Your task to perform on an android device: What's on the menu at Burger King? Image 0: 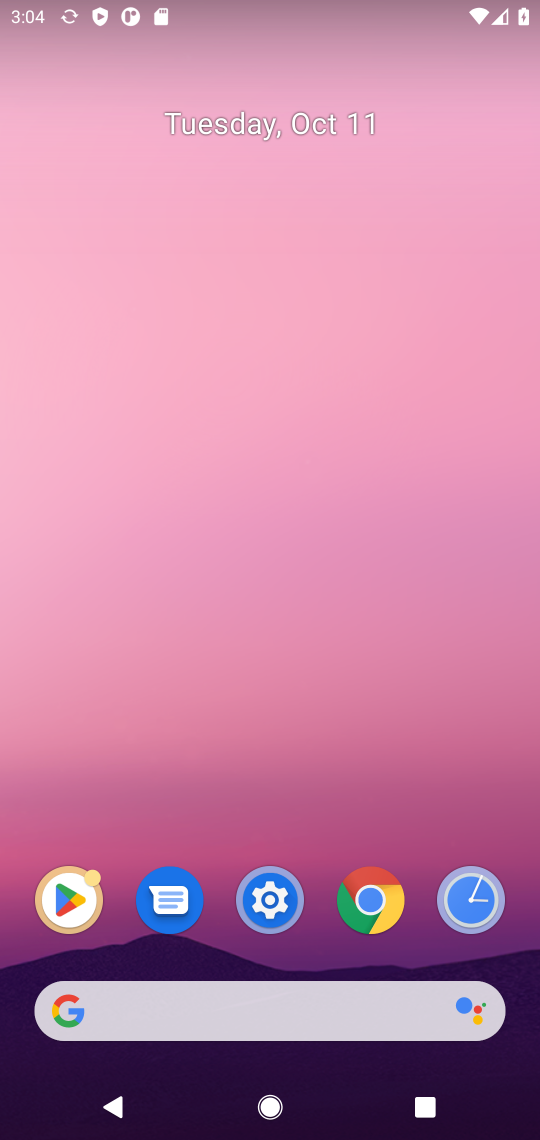
Step 0: click (307, 1001)
Your task to perform on an android device: What's on the menu at Burger King? Image 1: 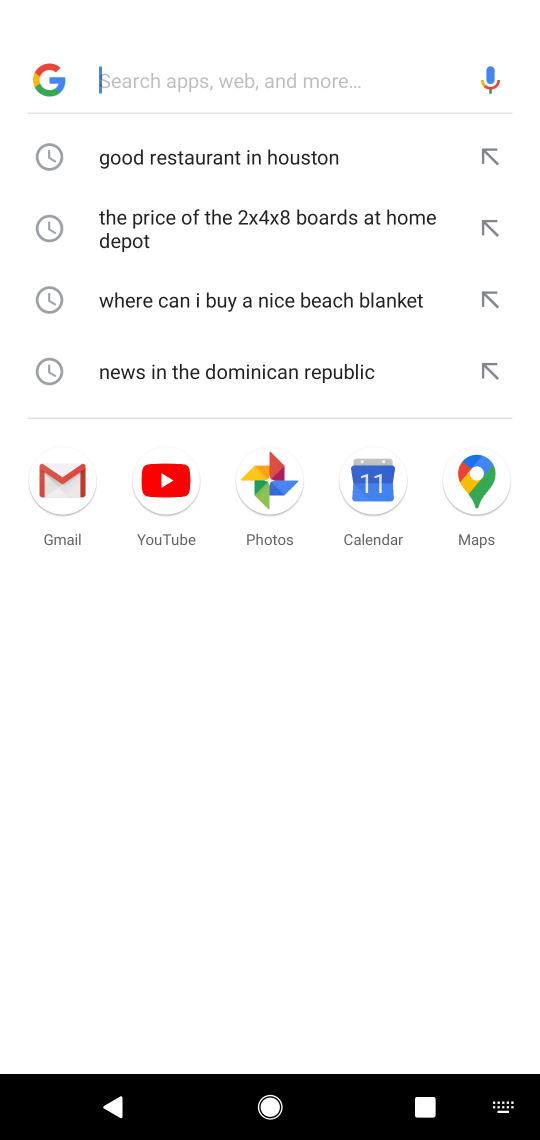
Step 1: type "the menu at Burger King?"
Your task to perform on an android device: What's on the menu at Burger King? Image 2: 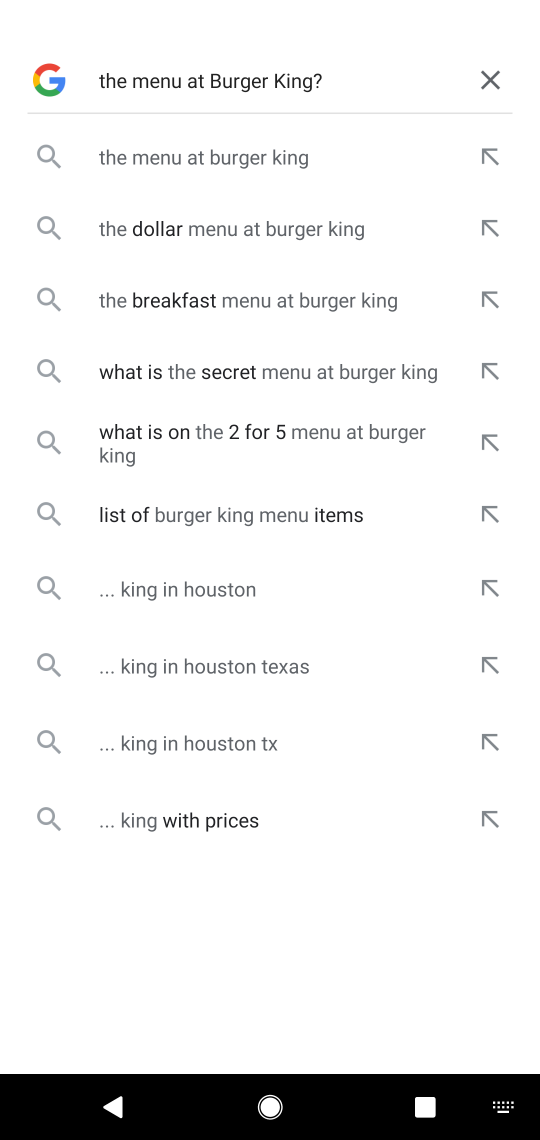
Step 2: type ""
Your task to perform on an android device: What's on the menu at Burger King? Image 3: 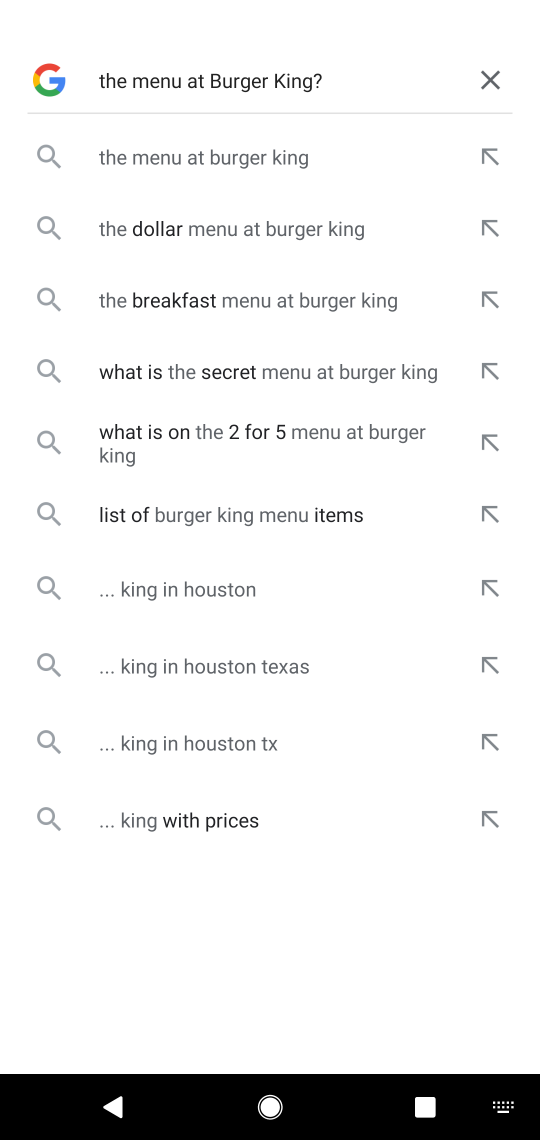
Step 3: click (198, 169)
Your task to perform on an android device: What's on the menu at Burger King? Image 4: 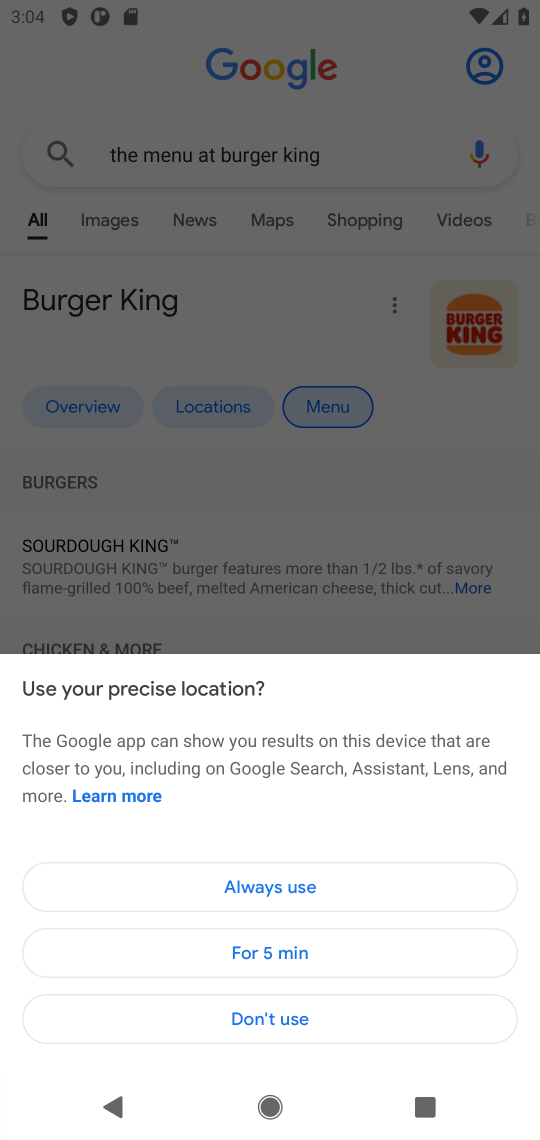
Step 4: drag from (227, 817) to (268, 696)
Your task to perform on an android device: What's on the menu at Burger King? Image 5: 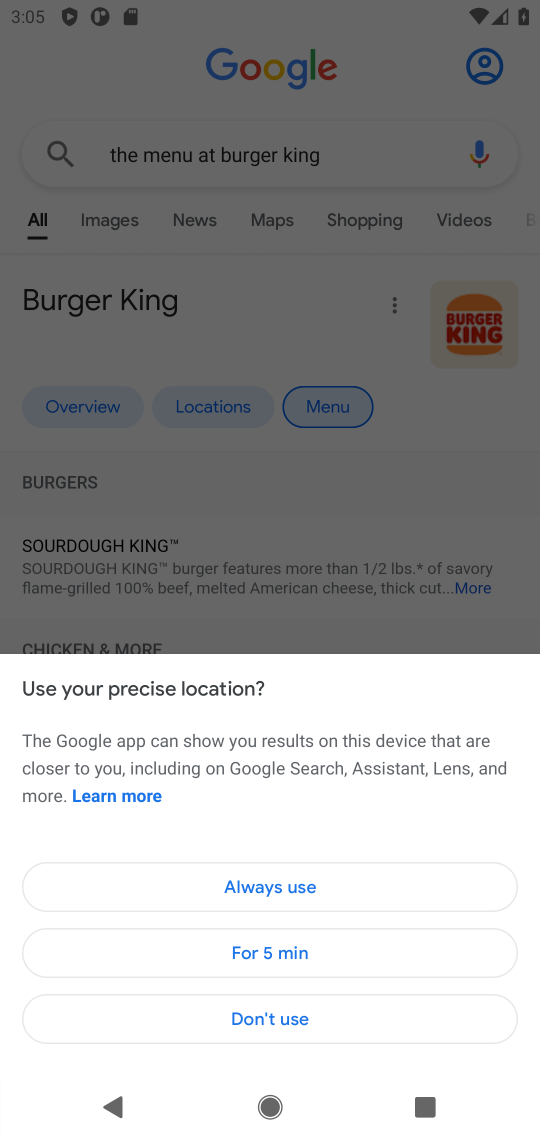
Step 5: click (274, 881)
Your task to perform on an android device: What's on the menu at Burger King? Image 6: 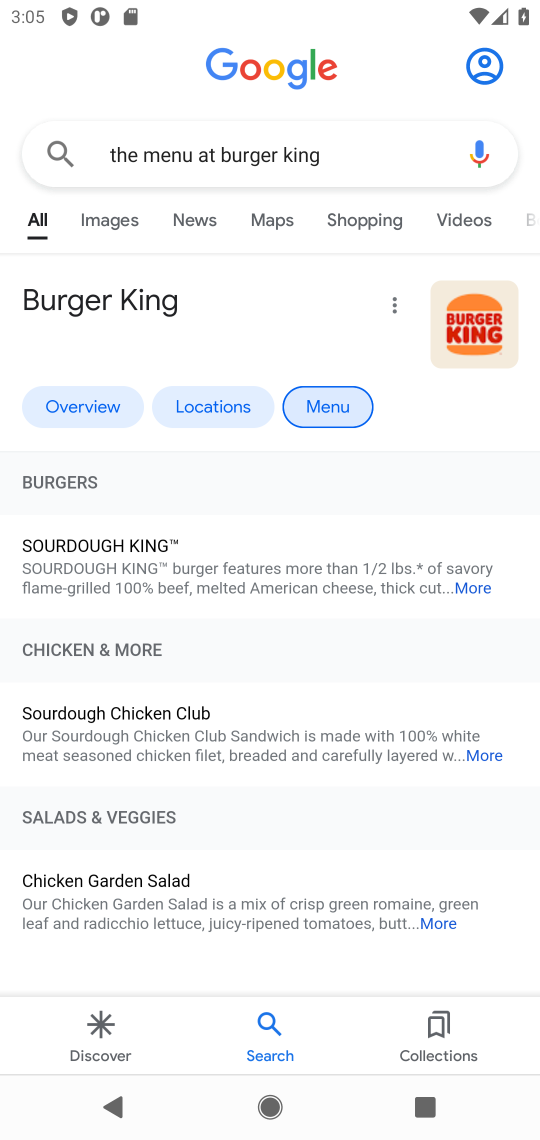
Step 6: drag from (272, 887) to (314, 307)
Your task to perform on an android device: What's on the menu at Burger King? Image 7: 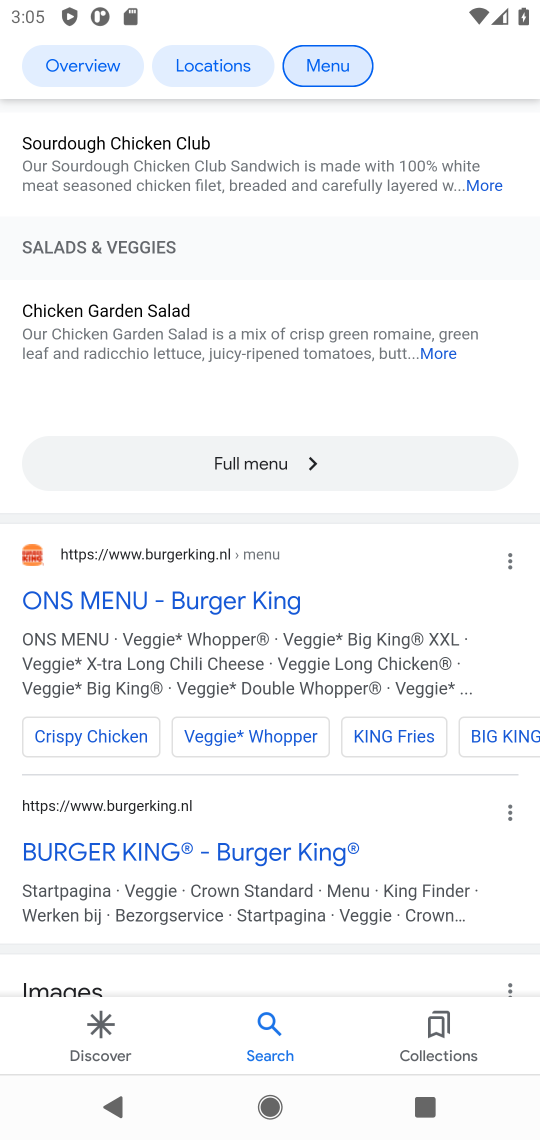
Step 7: drag from (314, 658) to (321, 591)
Your task to perform on an android device: What's on the menu at Burger King? Image 8: 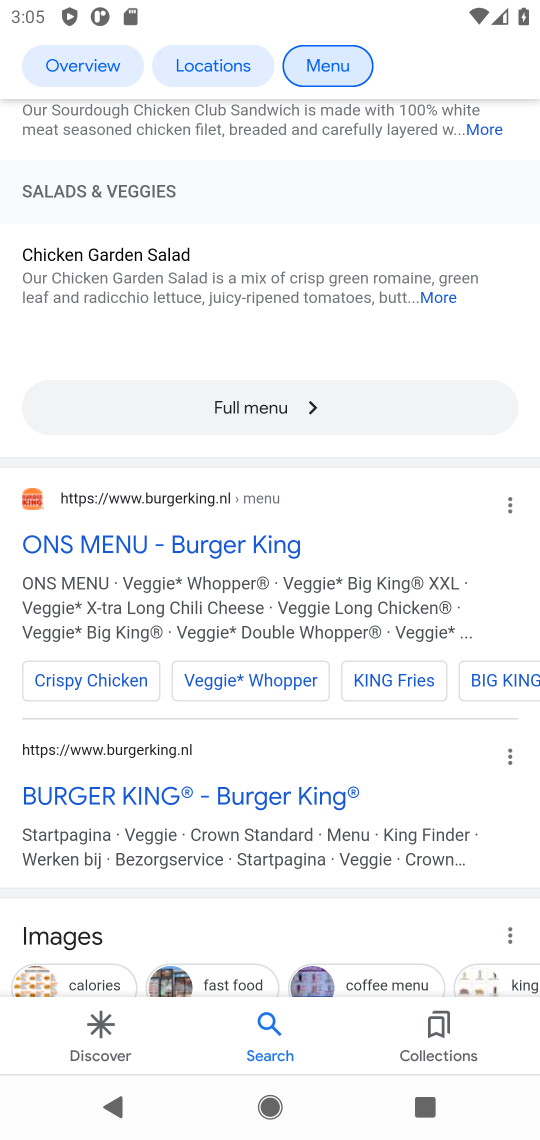
Step 8: click (204, 557)
Your task to perform on an android device: What's on the menu at Burger King? Image 9: 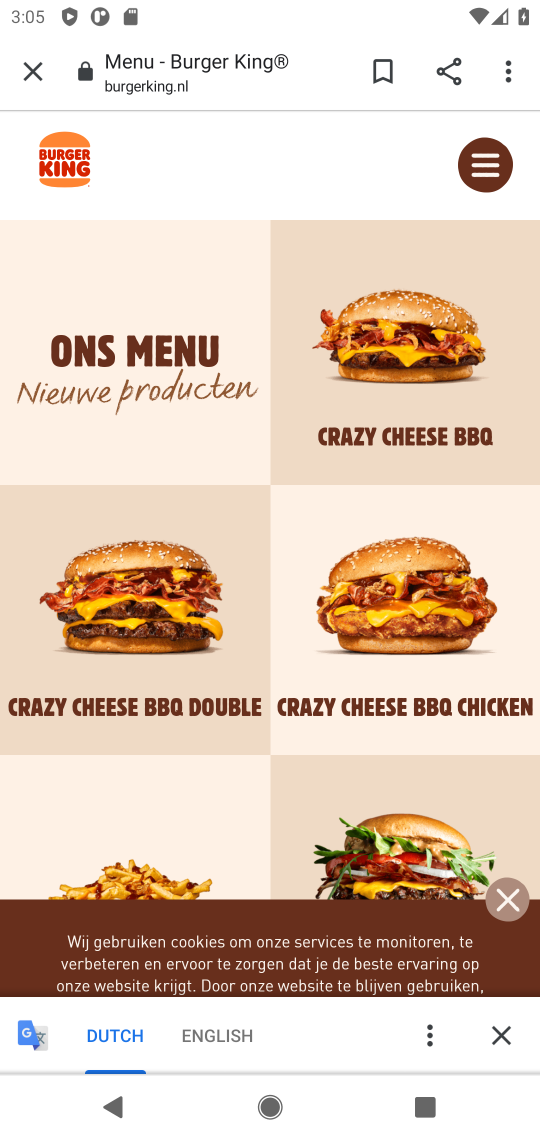
Step 9: click (223, 755)
Your task to perform on an android device: What's on the menu at Burger King? Image 10: 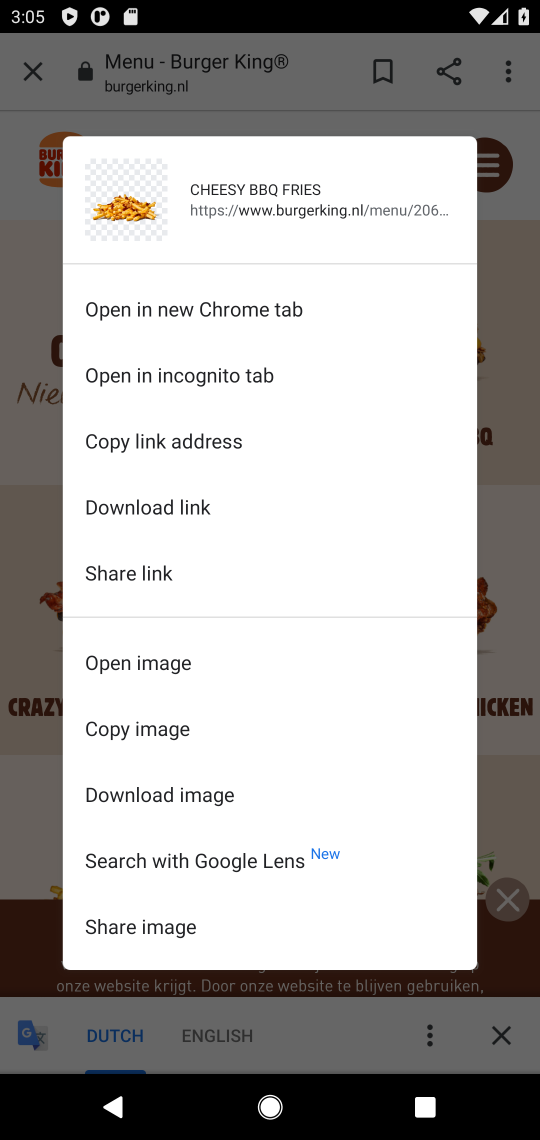
Step 10: click (516, 688)
Your task to perform on an android device: What's on the menu at Burger King? Image 11: 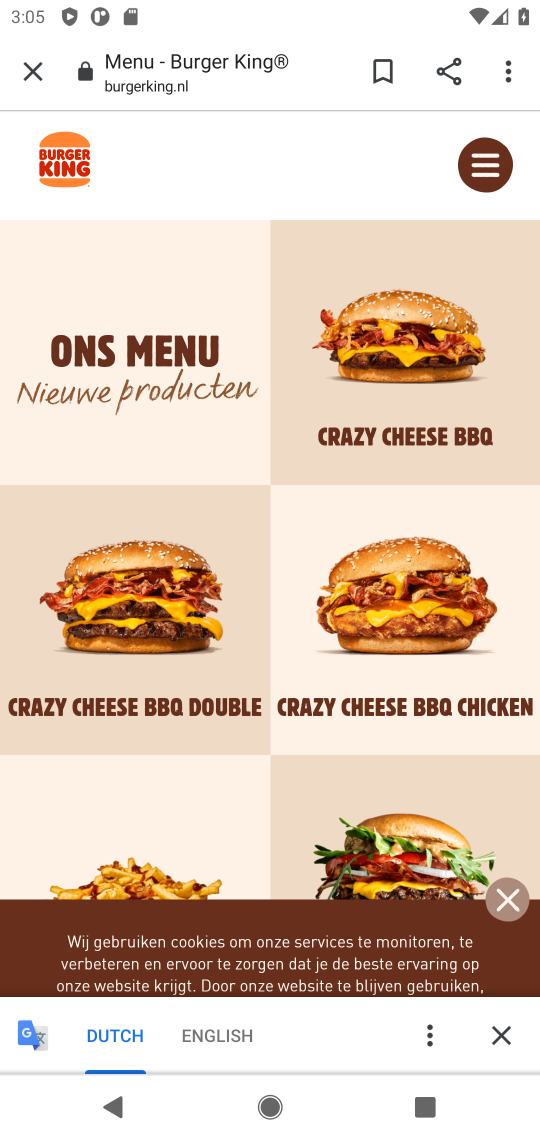
Step 11: drag from (285, 791) to (293, 639)
Your task to perform on an android device: What's on the menu at Burger King? Image 12: 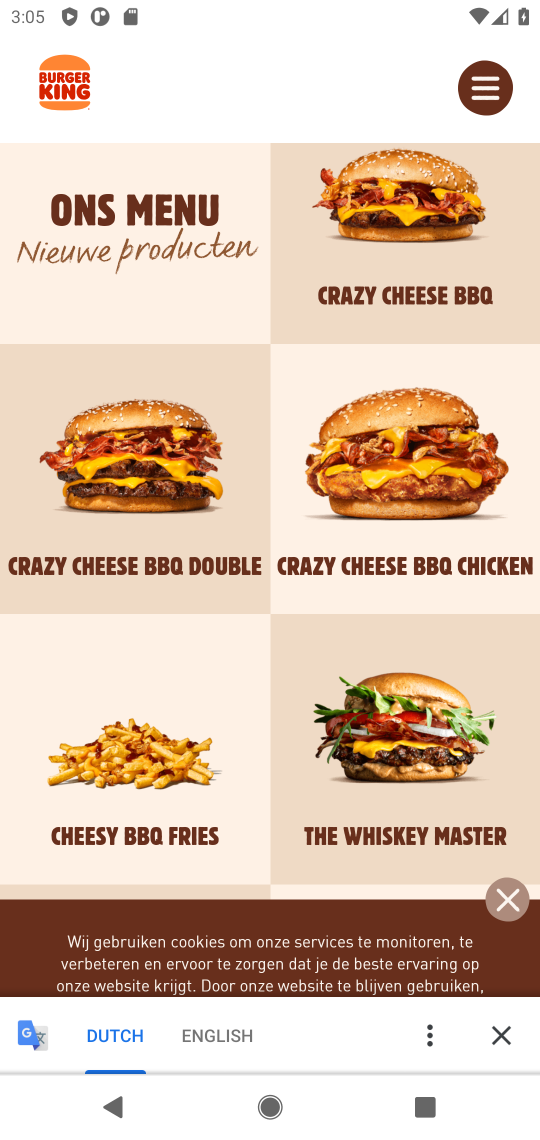
Step 12: click (516, 922)
Your task to perform on an android device: What's on the menu at Burger King? Image 13: 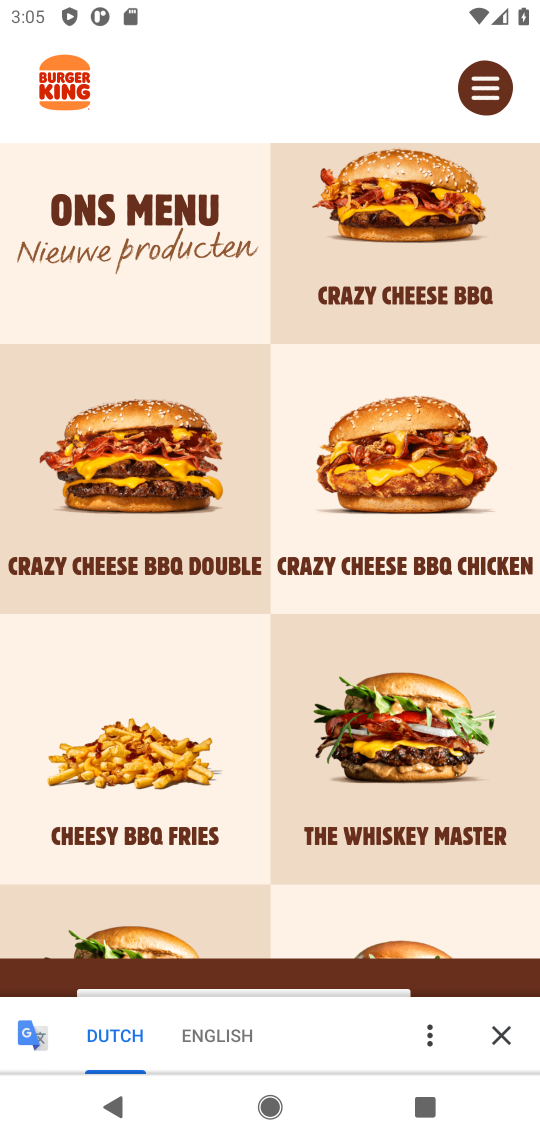
Step 13: click (510, 907)
Your task to perform on an android device: What's on the menu at Burger King? Image 14: 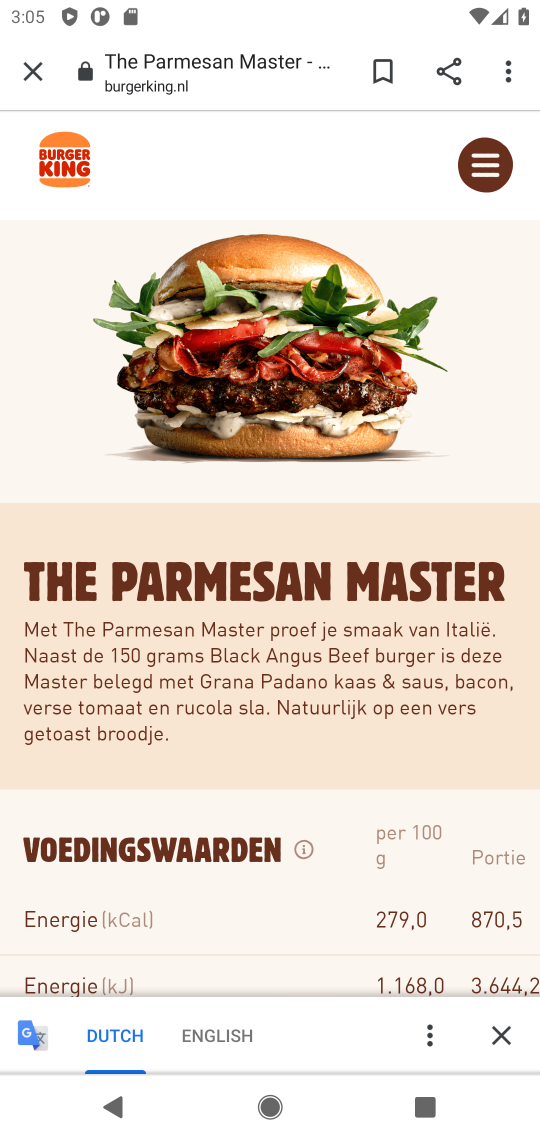
Step 14: drag from (267, 902) to (273, 258)
Your task to perform on an android device: What's on the menu at Burger King? Image 15: 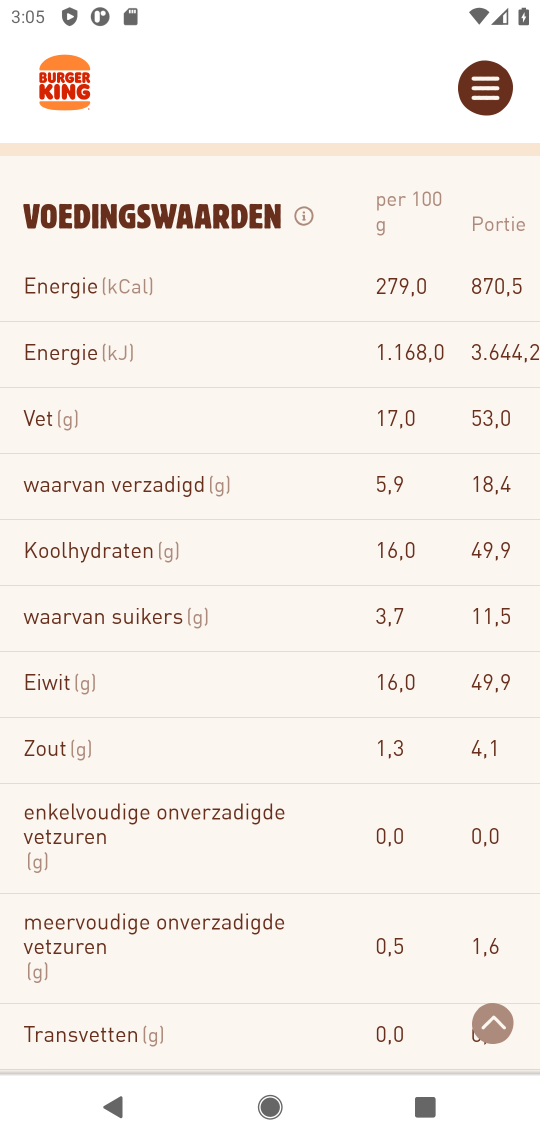
Step 15: drag from (259, 928) to (261, 456)
Your task to perform on an android device: What's on the menu at Burger King? Image 16: 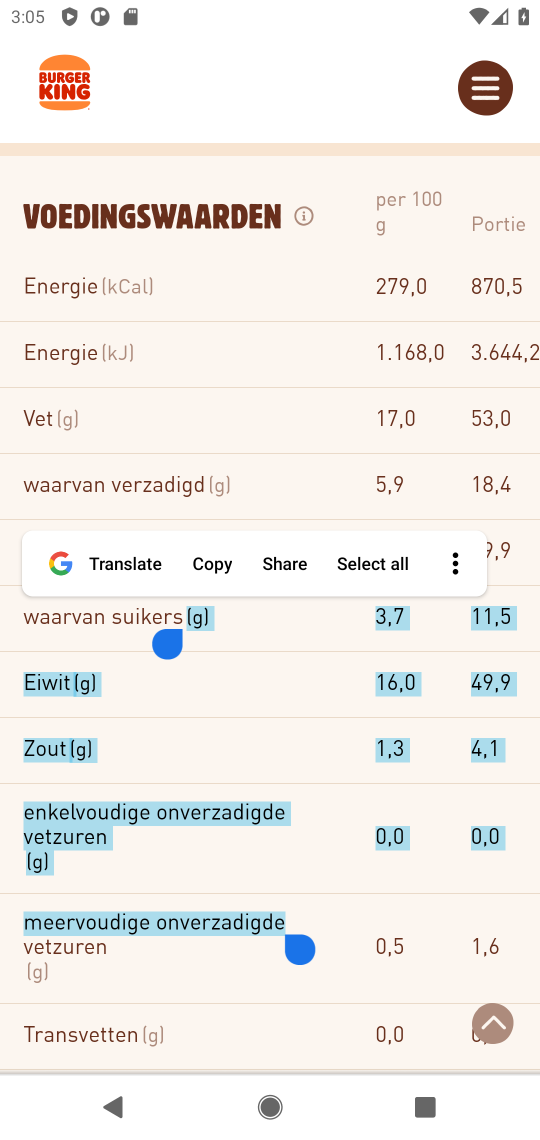
Step 16: click (261, 464)
Your task to perform on an android device: What's on the menu at Burger King? Image 17: 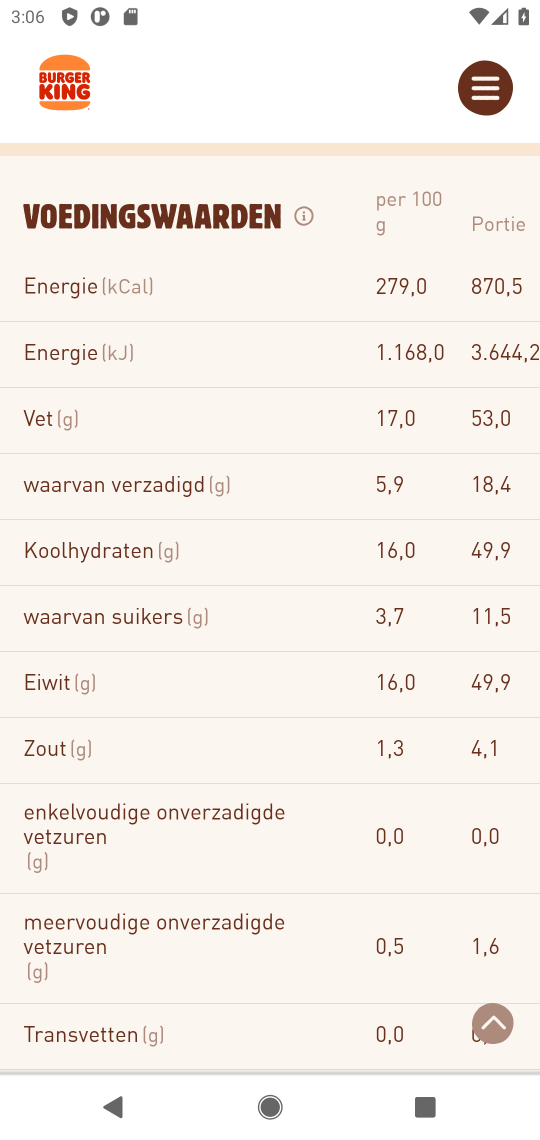
Step 17: task complete